Your task to perform on an android device: Toggle the flashlight Image 0: 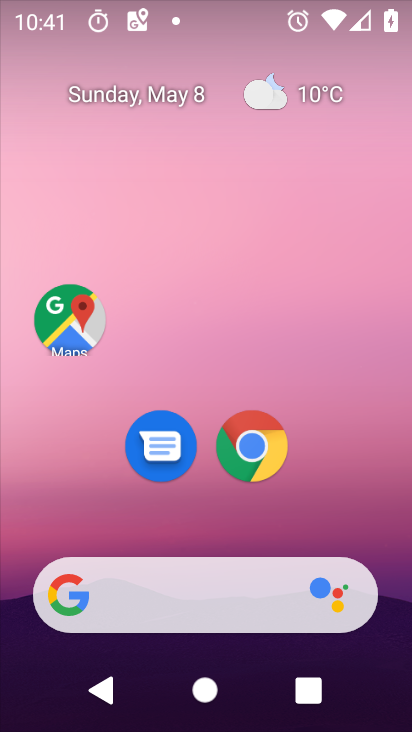
Step 0: drag from (214, 14) to (277, 676)
Your task to perform on an android device: Toggle the flashlight Image 1: 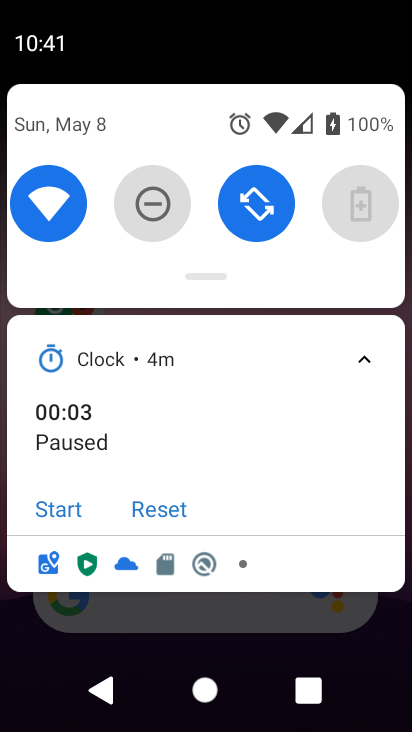
Step 1: task complete